Your task to perform on an android device: Empty the shopping cart on target. Add "bose quietcomfort 35" to the cart on target, then select checkout. Image 0: 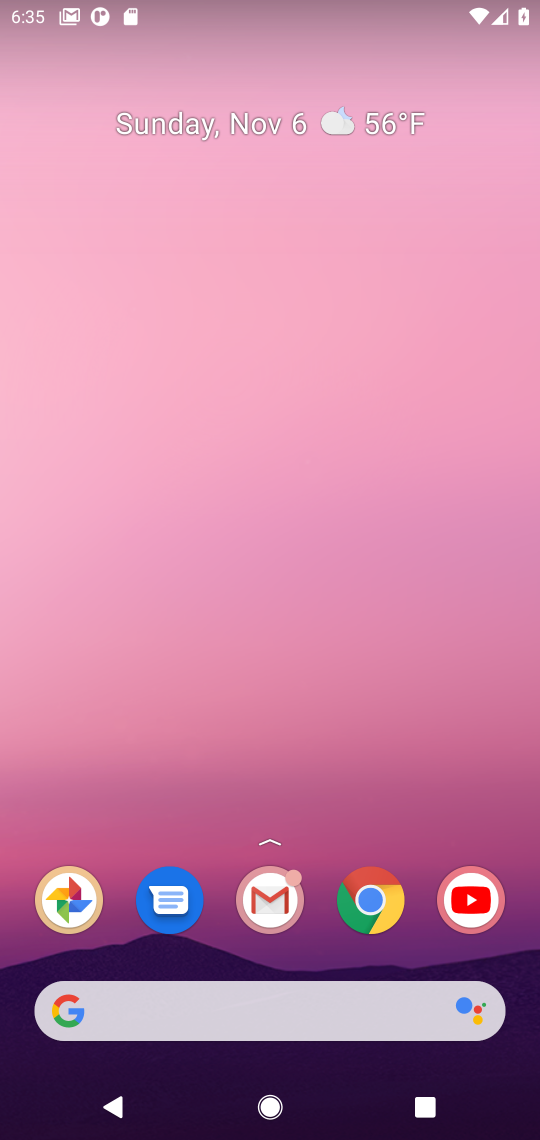
Step 0: click (213, 238)
Your task to perform on an android device: Empty the shopping cart on target. Add "bose quietcomfort 35" to the cart on target, then select checkout. Image 1: 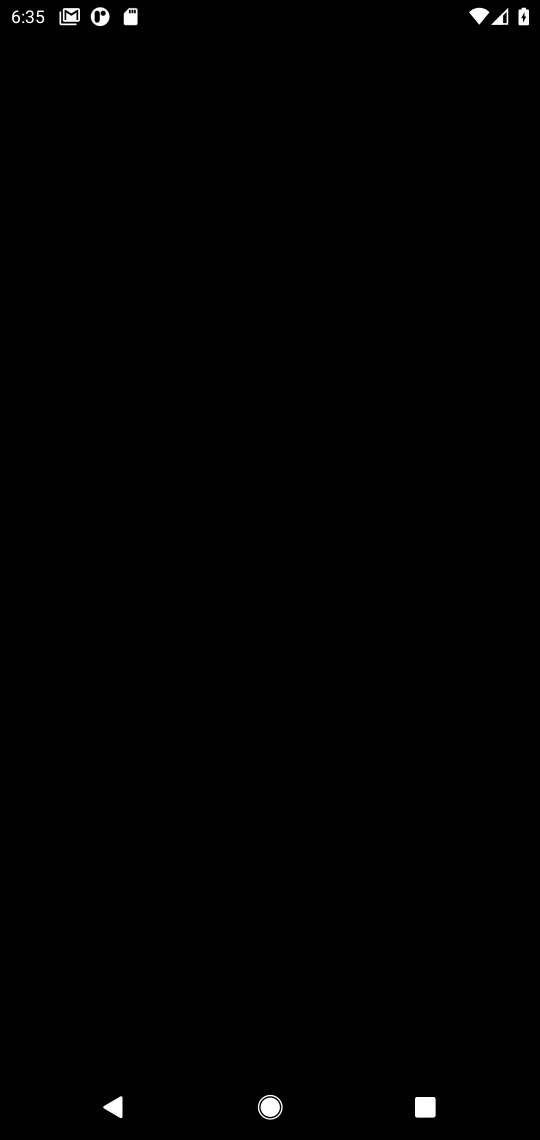
Step 1: press home button
Your task to perform on an android device: Empty the shopping cart on target. Add "bose quietcomfort 35" to the cart on target, then select checkout. Image 2: 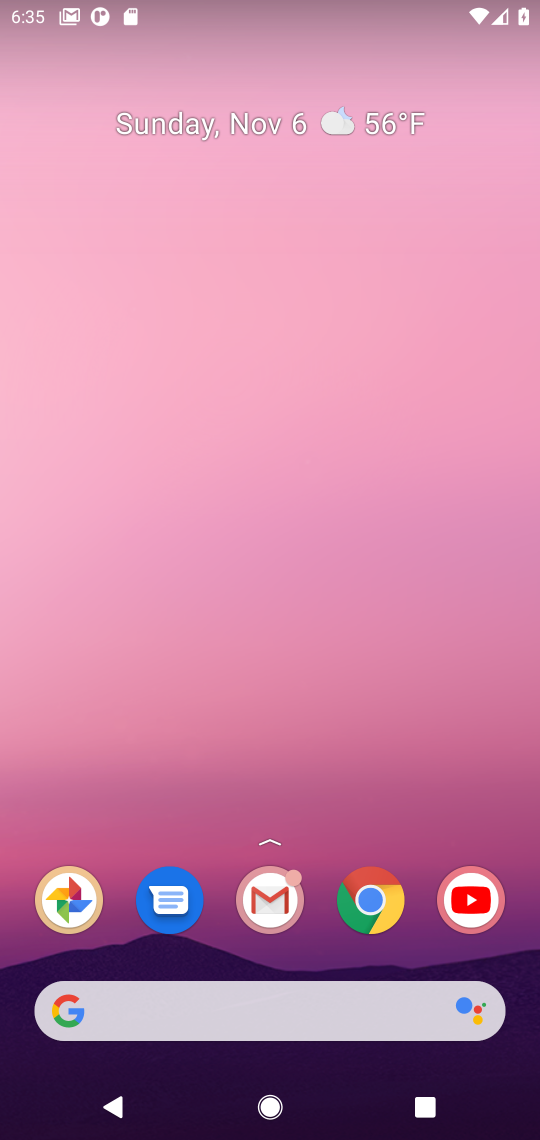
Step 2: drag from (312, 966) to (265, 181)
Your task to perform on an android device: Empty the shopping cart on target. Add "bose quietcomfort 35" to the cart on target, then select checkout. Image 3: 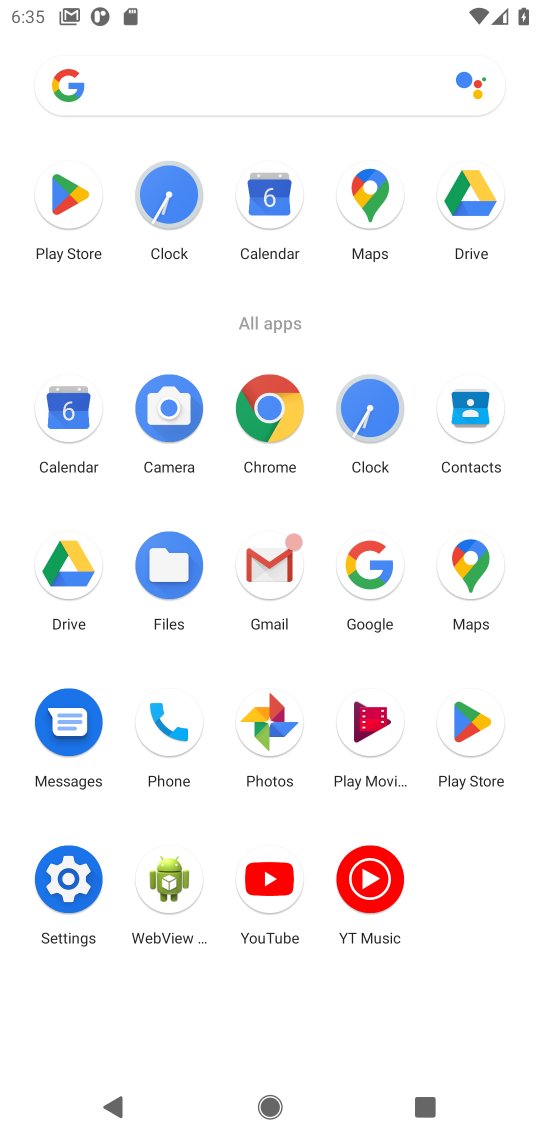
Step 3: click (269, 410)
Your task to perform on an android device: Empty the shopping cart on target. Add "bose quietcomfort 35" to the cart on target, then select checkout. Image 4: 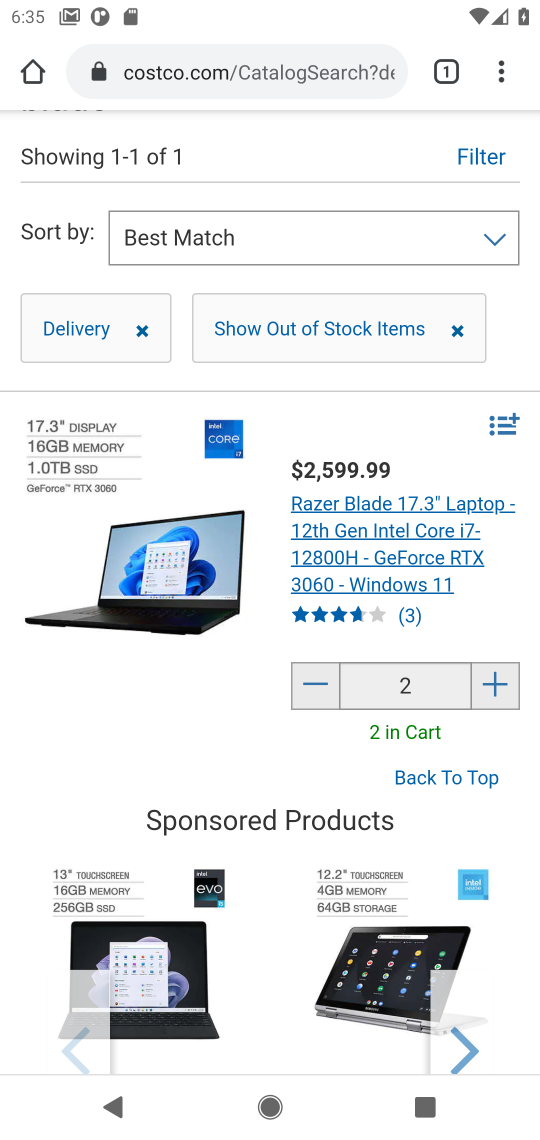
Step 4: click (338, 56)
Your task to perform on an android device: Empty the shopping cart on target. Add "bose quietcomfort 35" to the cart on target, then select checkout. Image 5: 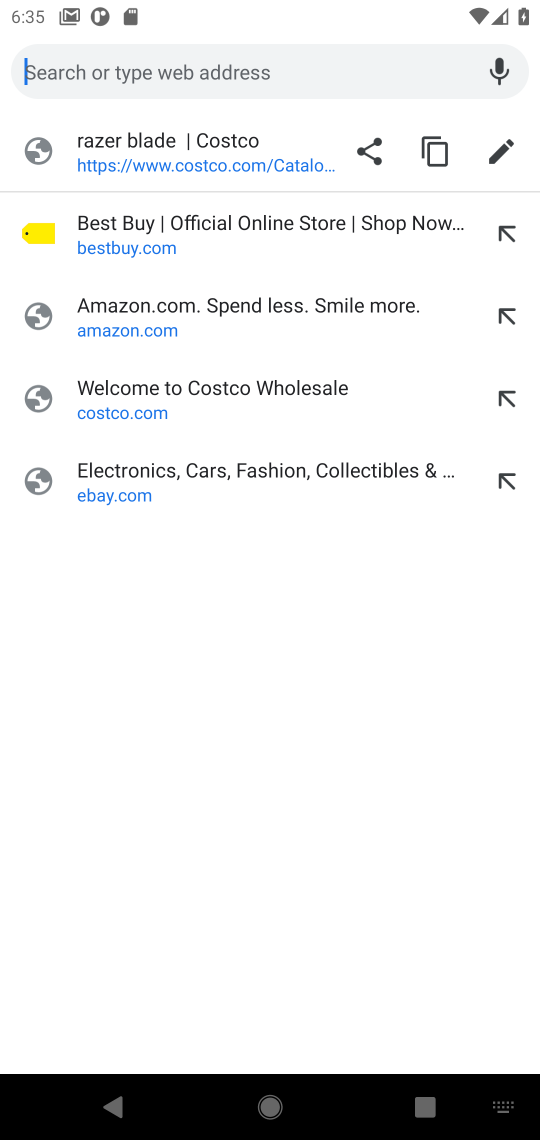
Step 5: type "target.com"
Your task to perform on an android device: Empty the shopping cart on target. Add "bose quietcomfort 35" to the cart on target, then select checkout. Image 6: 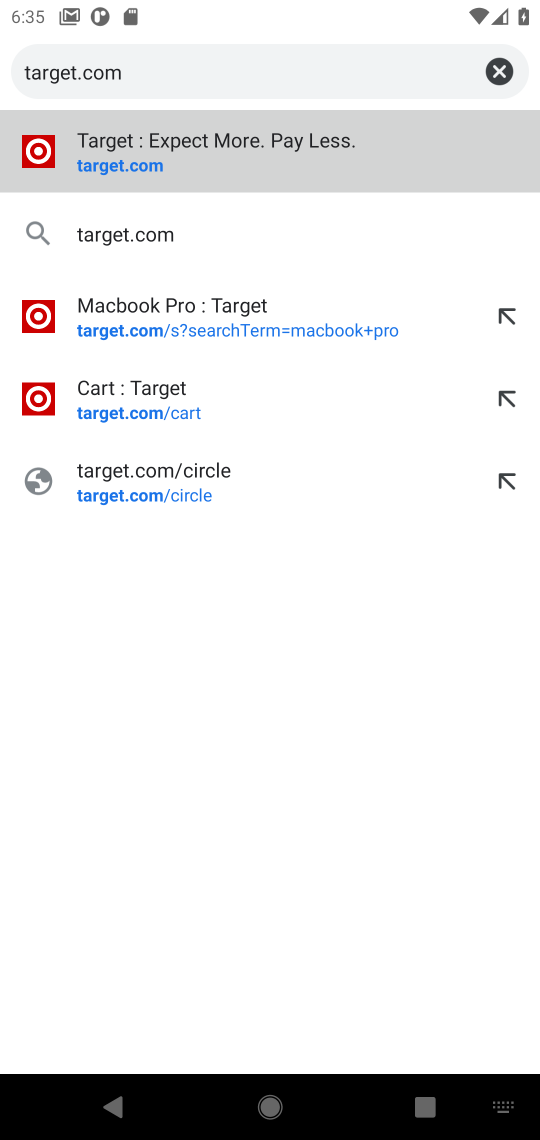
Step 6: press enter
Your task to perform on an android device: Empty the shopping cart on target. Add "bose quietcomfort 35" to the cart on target, then select checkout. Image 7: 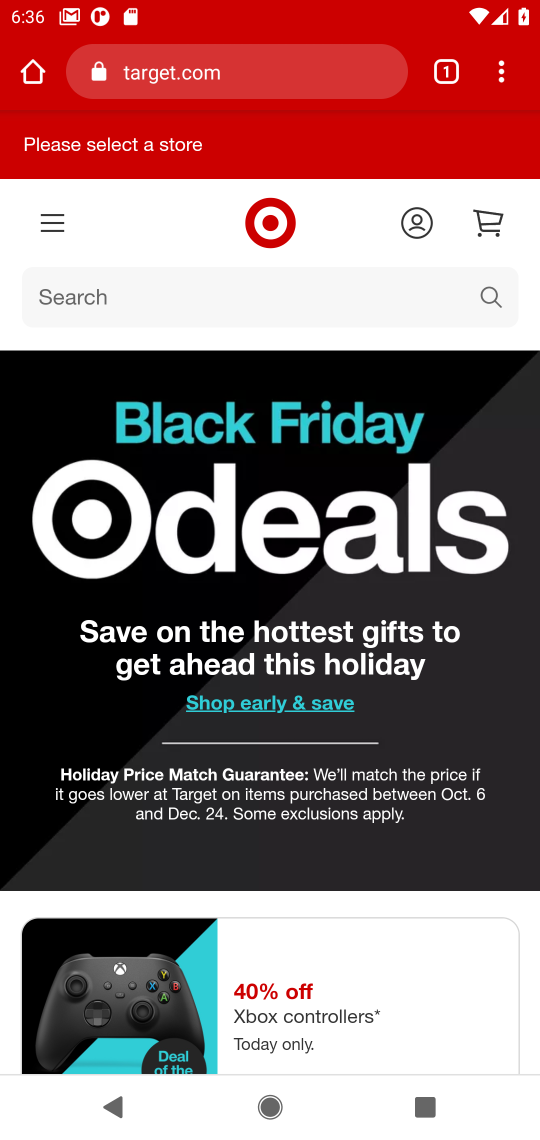
Step 7: click (495, 223)
Your task to perform on an android device: Empty the shopping cart on target. Add "bose quietcomfort 35" to the cart on target, then select checkout. Image 8: 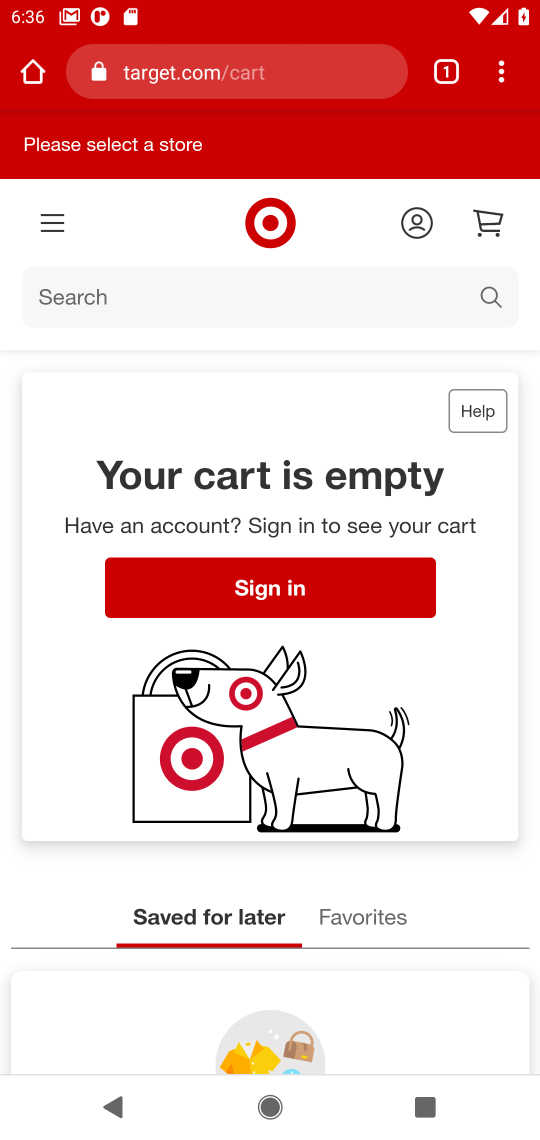
Step 8: click (278, 311)
Your task to perform on an android device: Empty the shopping cart on target. Add "bose quietcomfort 35" to the cart on target, then select checkout. Image 9: 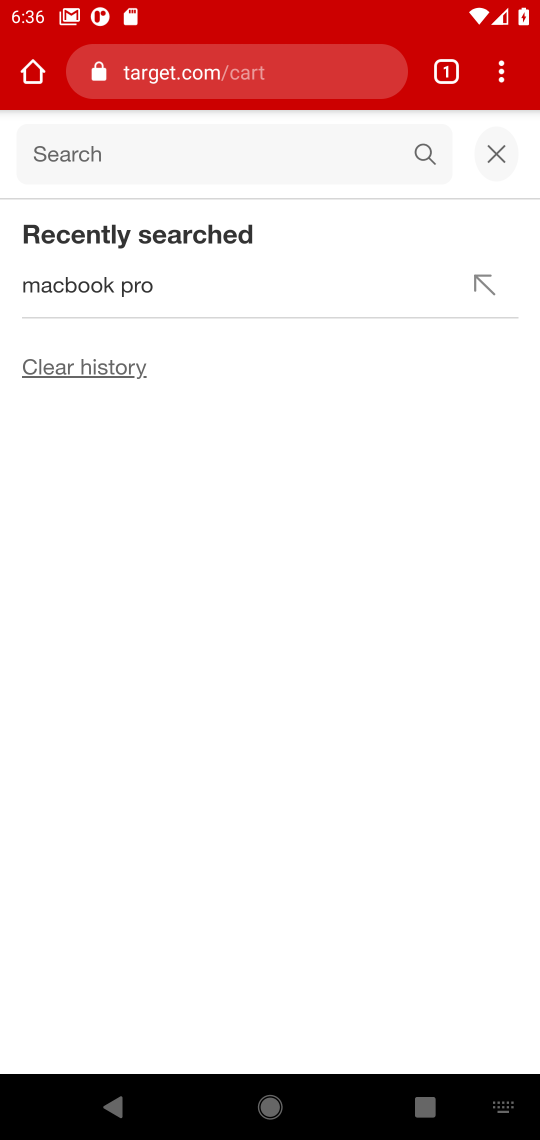
Step 9: type "bose quietcomfort 35"
Your task to perform on an android device: Empty the shopping cart on target. Add "bose quietcomfort 35" to the cart on target, then select checkout. Image 10: 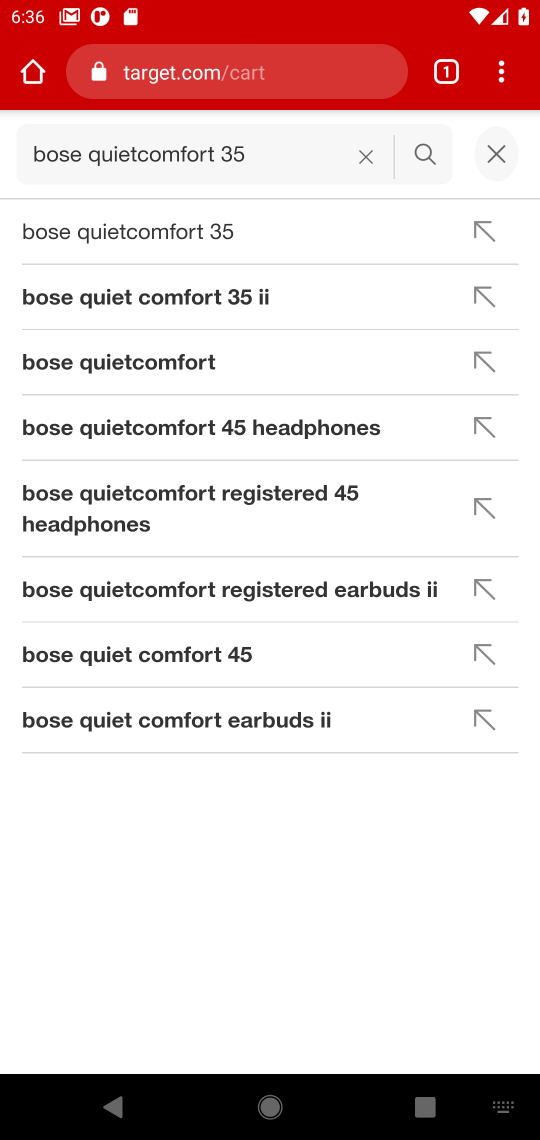
Step 10: press enter
Your task to perform on an android device: Empty the shopping cart on target. Add "bose quietcomfort 35" to the cart on target, then select checkout. Image 11: 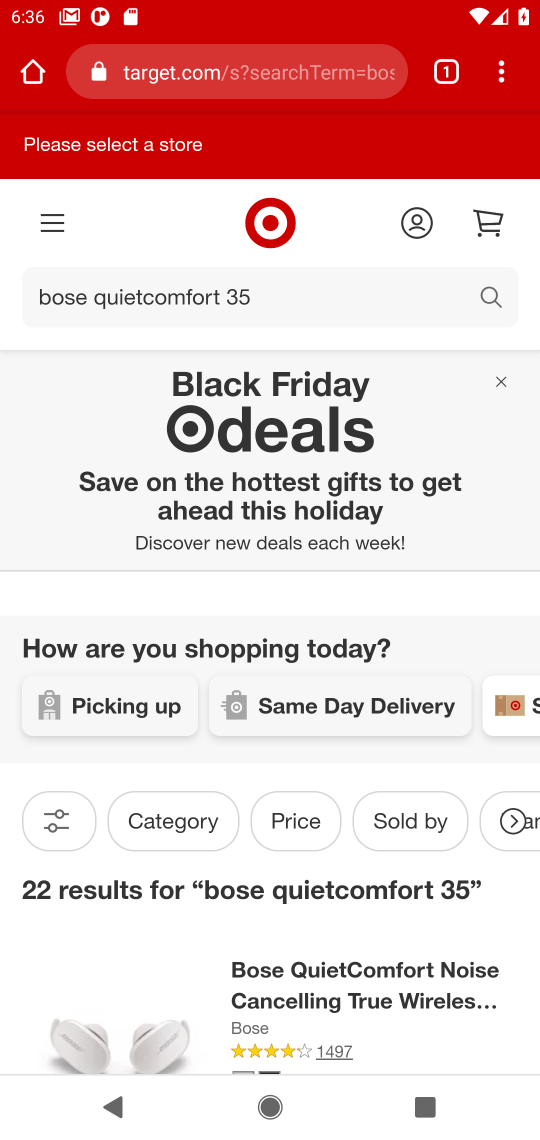
Step 11: drag from (371, 964) to (341, 344)
Your task to perform on an android device: Empty the shopping cart on target. Add "bose quietcomfort 35" to the cart on target, then select checkout. Image 12: 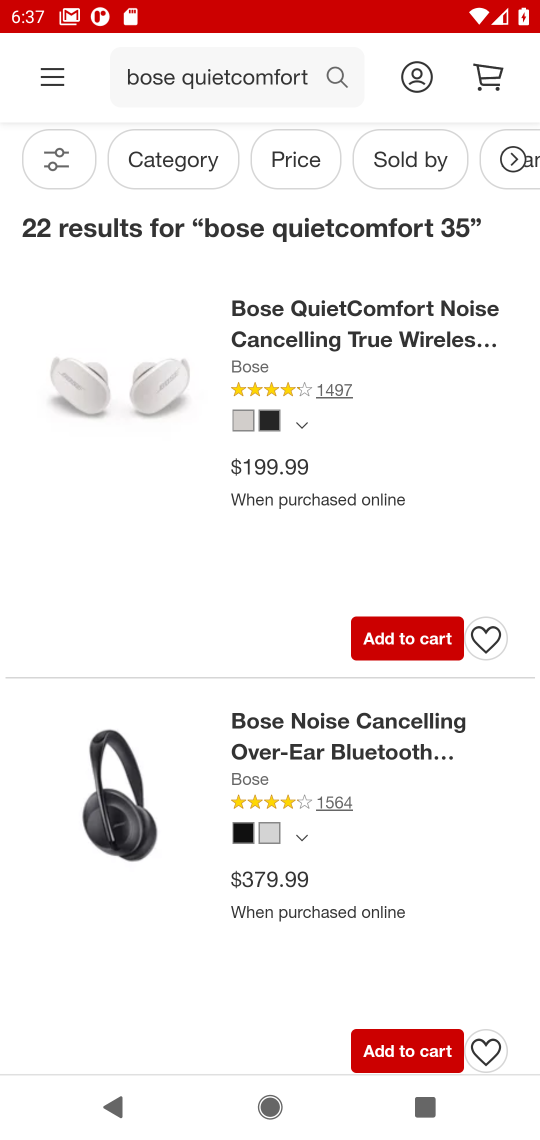
Step 12: drag from (325, 705) to (380, 54)
Your task to perform on an android device: Empty the shopping cart on target. Add "bose quietcomfort 35" to the cart on target, then select checkout. Image 13: 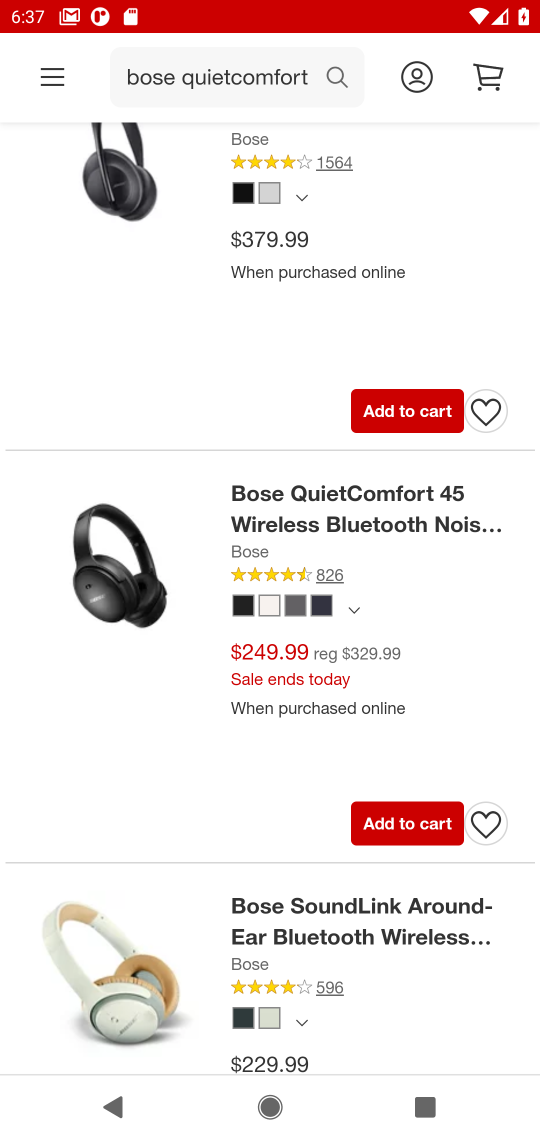
Step 13: drag from (278, 635) to (311, 136)
Your task to perform on an android device: Empty the shopping cart on target. Add "bose quietcomfort 35" to the cart on target, then select checkout. Image 14: 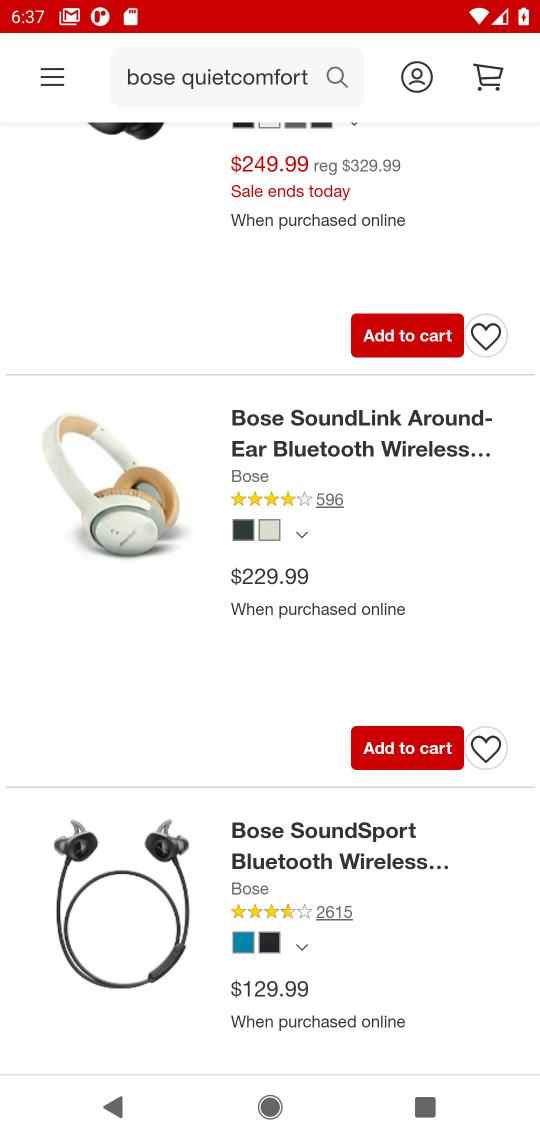
Step 14: drag from (262, 872) to (219, 1135)
Your task to perform on an android device: Empty the shopping cart on target. Add "bose quietcomfort 35" to the cart on target, then select checkout. Image 15: 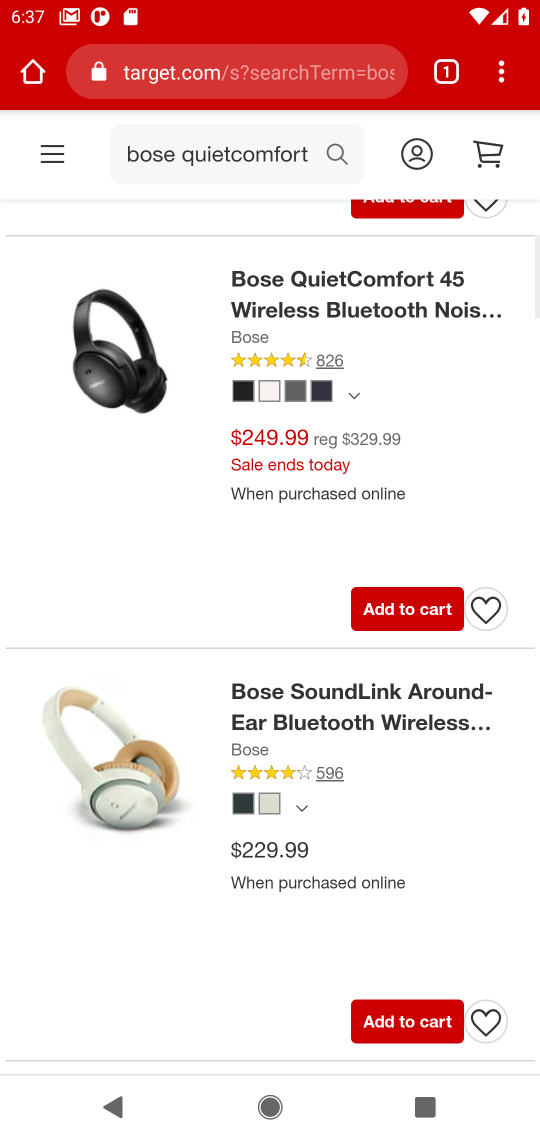
Step 15: drag from (242, 458) to (322, 148)
Your task to perform on an android device: Empty the shopping cart on target. Add "bose quietcomfort 35" to the cart on target, then select checkout. Image 16: 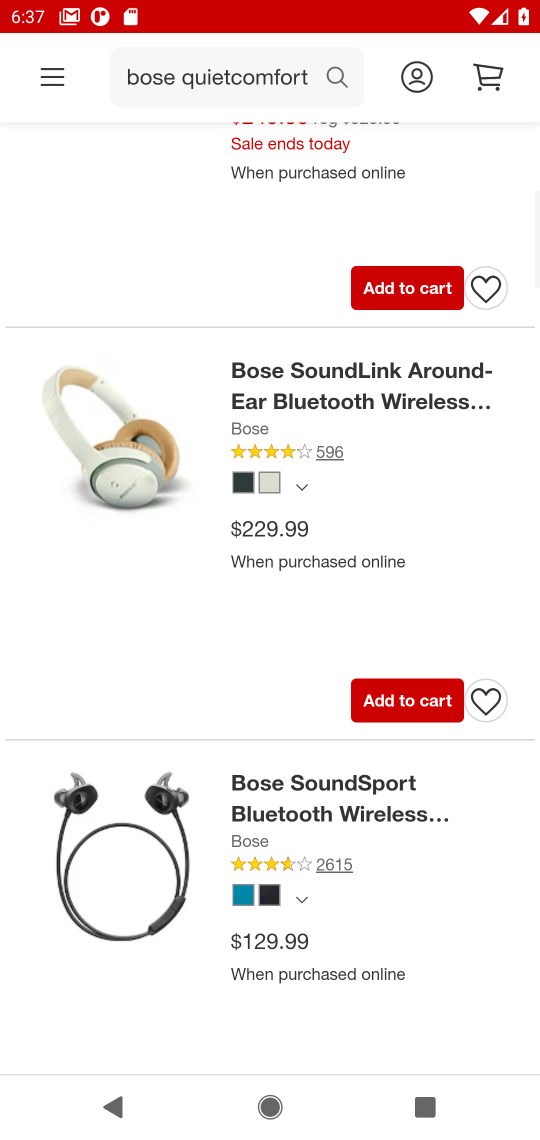
Step 16: drag from (267, 889) to (379, 196)
Your task to perform on an android device: Empty the shopping cart on target. Add "bose quietcomfort 35" to the cart on target, then select checkout. Image 17: 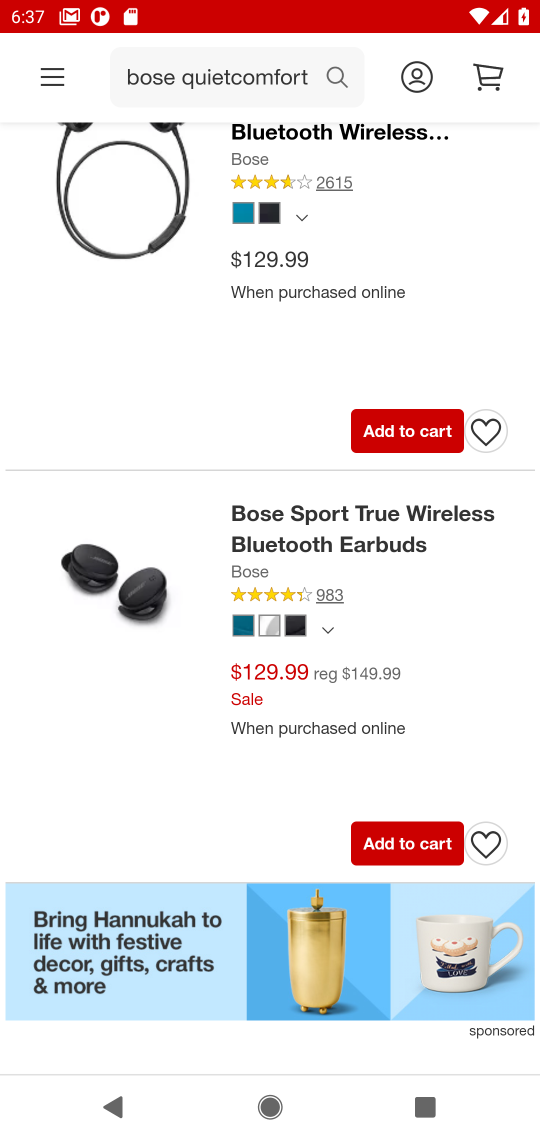
Step 17: click (483, 91)
Your task to perform on an android device: Empty the shopping cart on target. Add "bose quietcomfort 35" to the cart on target, then select checkout. Image 18: 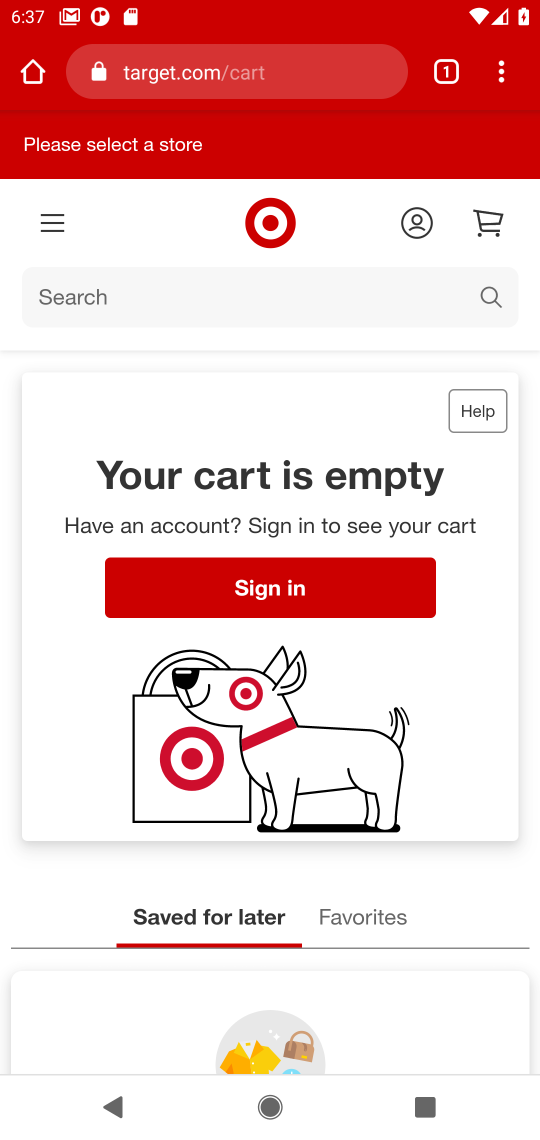
Step 18: click (343, 292)
Your task to perform on an android device: Empty the shopping cart on target. Add "bose quietcomfort 35" to the cart on target, then select checkout. Image 19: 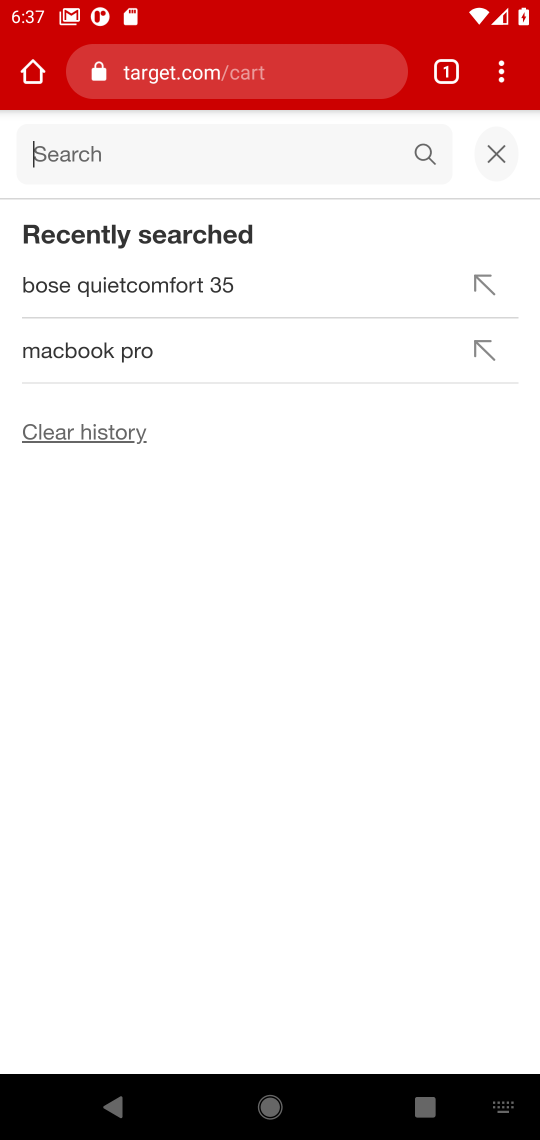
Step 19: type "bose"
Your task to perform on an android device: Empty the shopping cart on target. Add "bose quietcomfort 35" to the cart on target, then select checkout. Image 20: 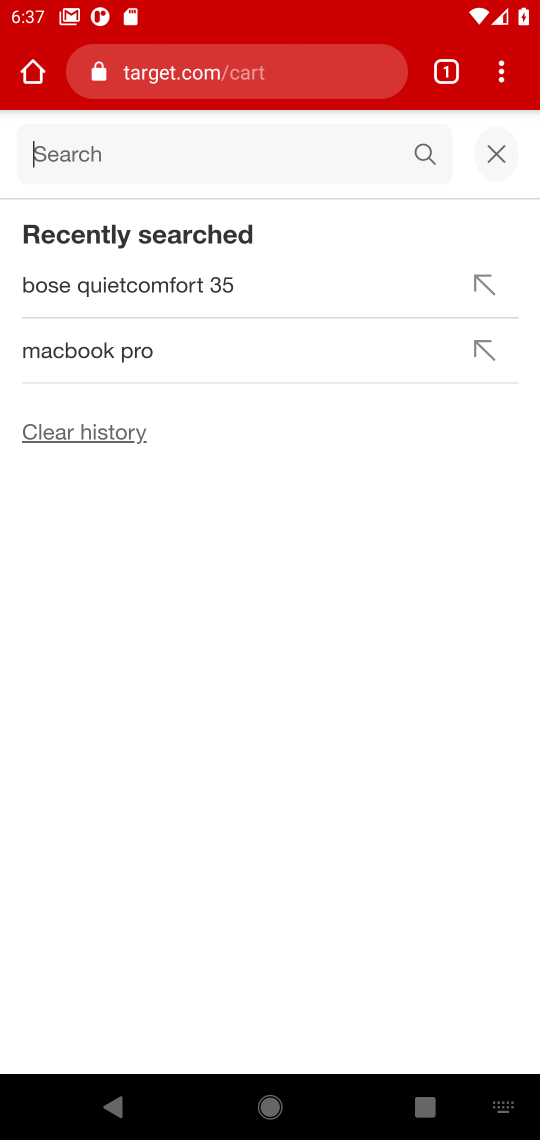
Step 20: click (199, 295)
Your task to perform on an android device: Empty the shopping cart on target. Add "bose quietcomfort 35" to the cart on target, then select checkout. Image 21: 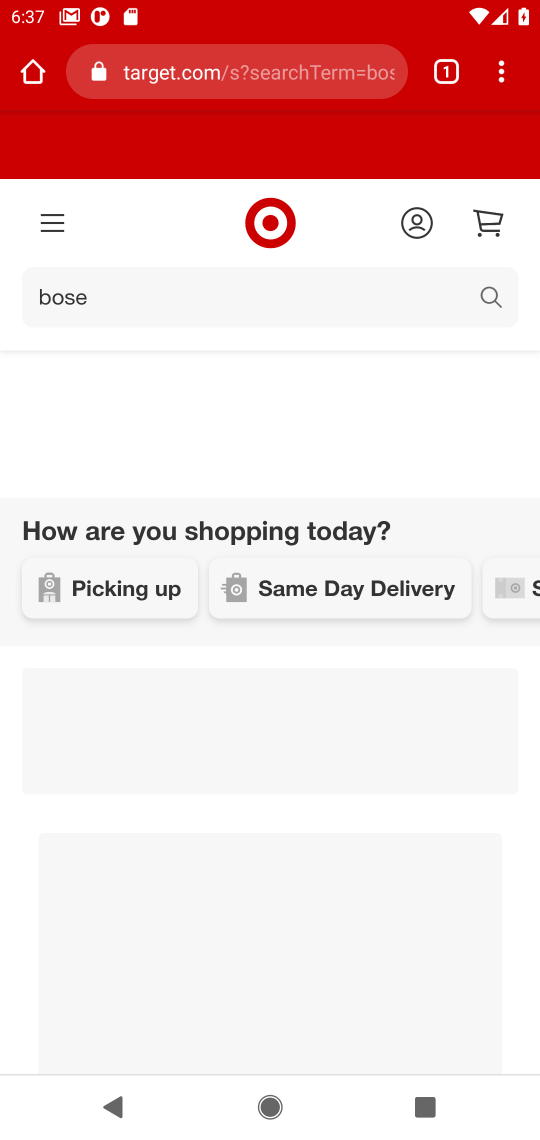
Step 21: click (199, 295)
Your task to perform on an android device: Empty the shopping cart on target. Add "bose quietcomfort 35" to the cart on target, then select checkout. Image 22: 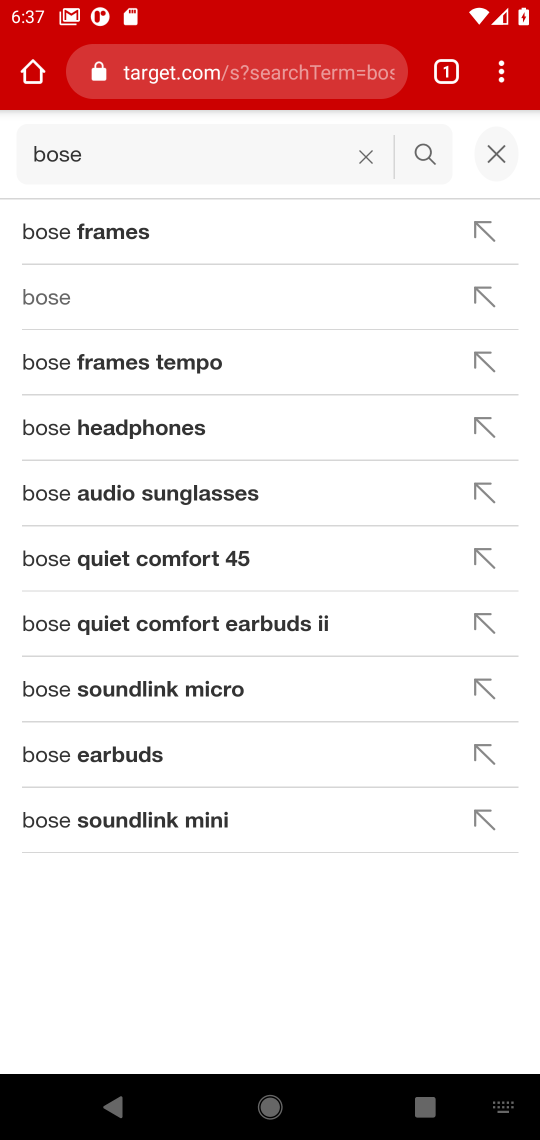
Step 22: type " quietcomfort 35"
Your task to perform on an android device: Empty the shopping cart on target. Add "bose quietcomfort 35" to the cart on target, then select checkout. Image 23: 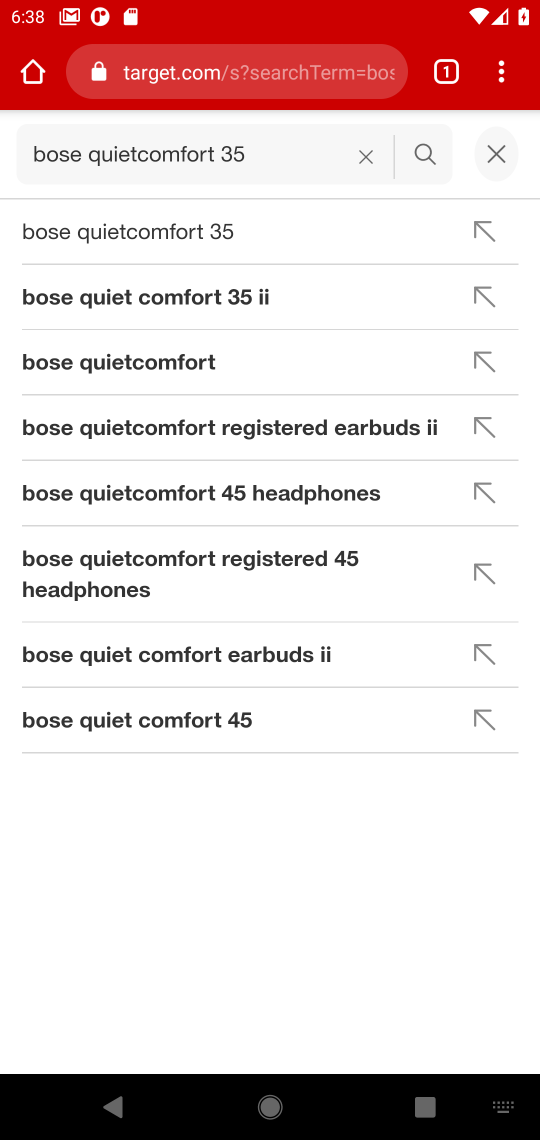
Step 23: press enter
Your task to perform on an android device: Empty the shopping cart on target. Add "bose quietcomfort 35" to the cart on target, then select checkout. Image 24: 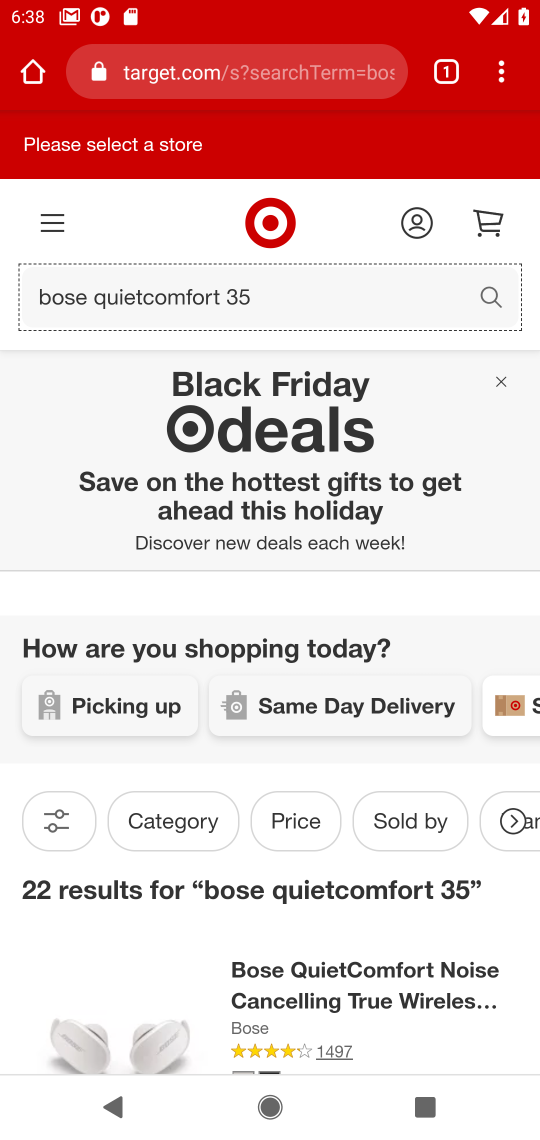
Step 24: task complete